Your task to perform on an android device: Open notification settings Image 0: 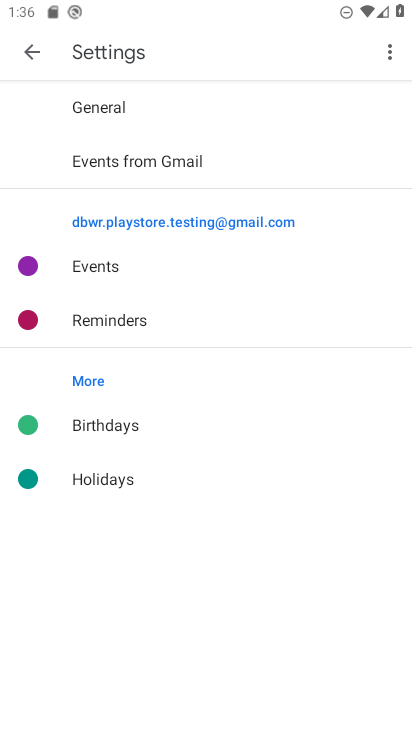
Step 0: press back button
Your task to perform on an android device: Open notification settings Image 1: 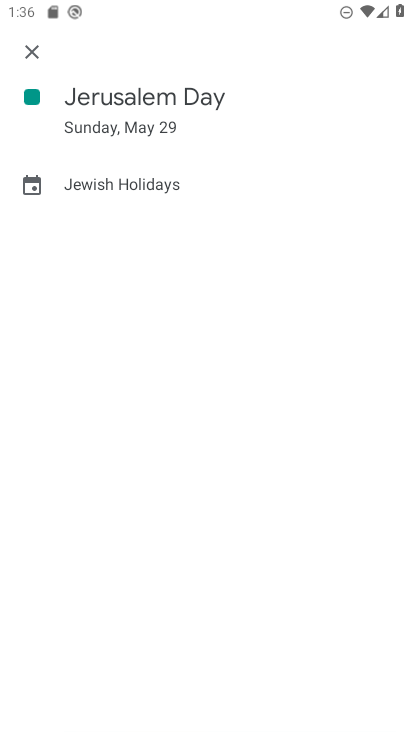
Step 1: press home button
Your task to perform on an android device: Open notification settings Image 2: 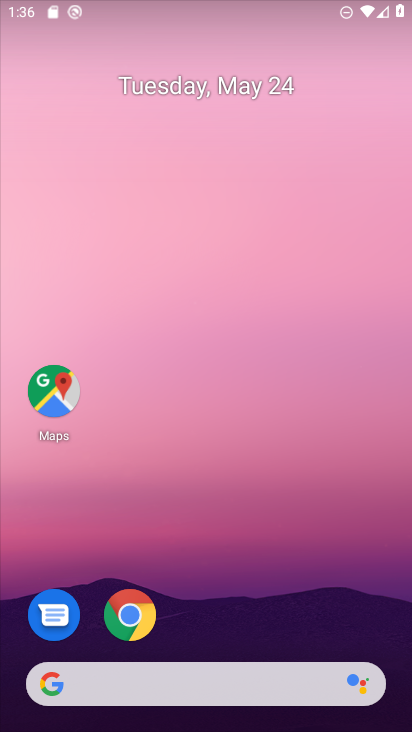
Step 2: drag from (255, 604) to (337, 65)
Your task to perform on an android device: Open notification settings Image 3: 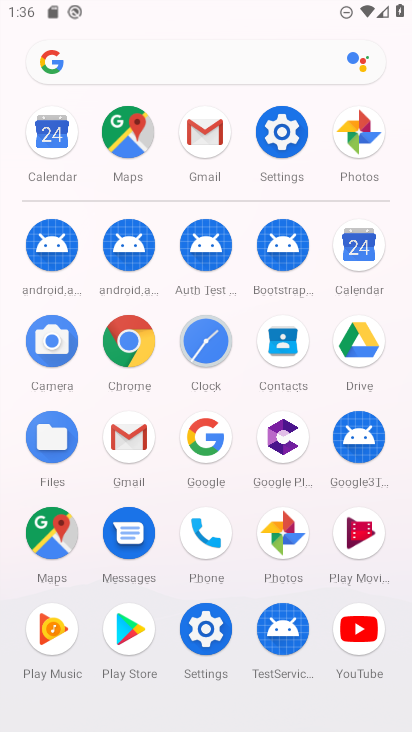
Step 3: click (200, 543)
Your task to perform on an android device: Open notification settings Image 4: 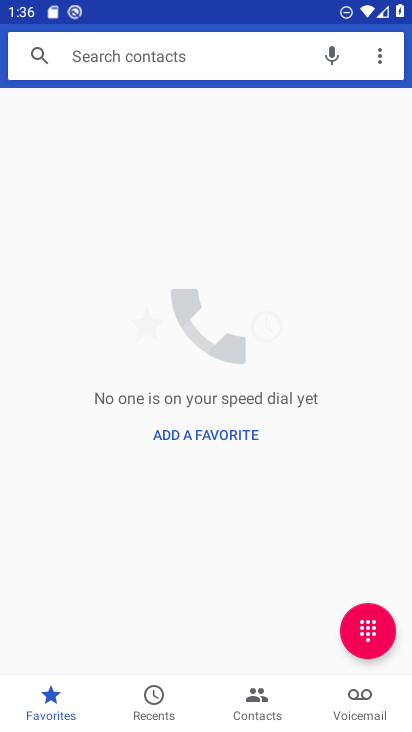
Step 4: press home button
Your task to perform on an android device: Open notification settings Image 5: 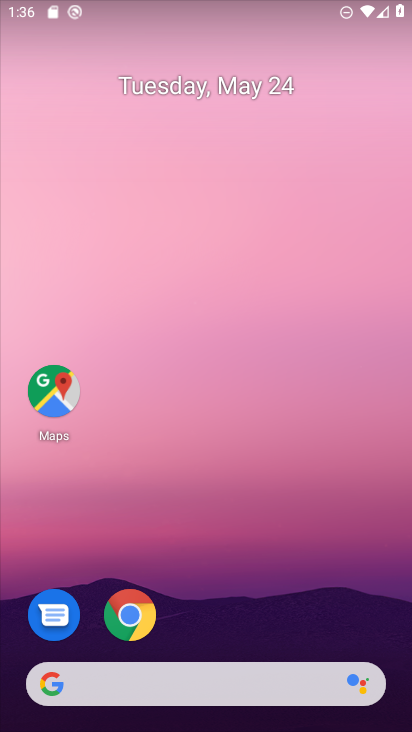
Step 5: drag from (213, 627) to (322, 85)
Your task to perform on an android device: Open notification settings Image 6: 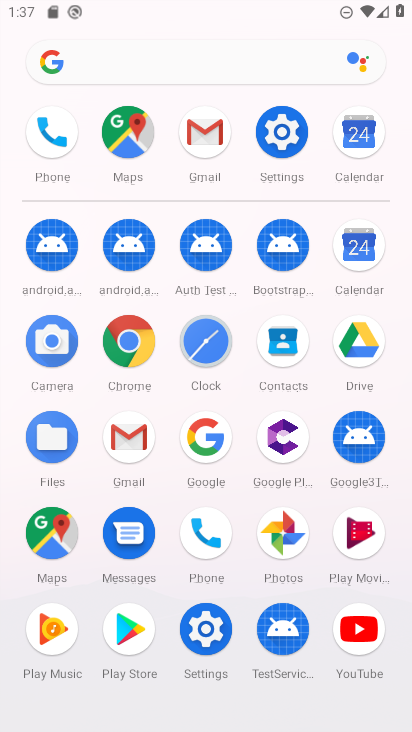
Step 6: click (258, 128)
Your task to perform on an android device: Open notification settings Image 7: 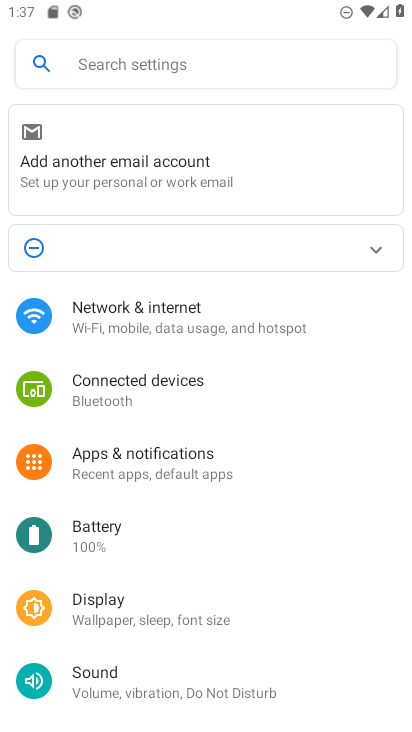
Step 7: click (152, 465)
Your task to perform on an android device: Open notification settings Image 8: 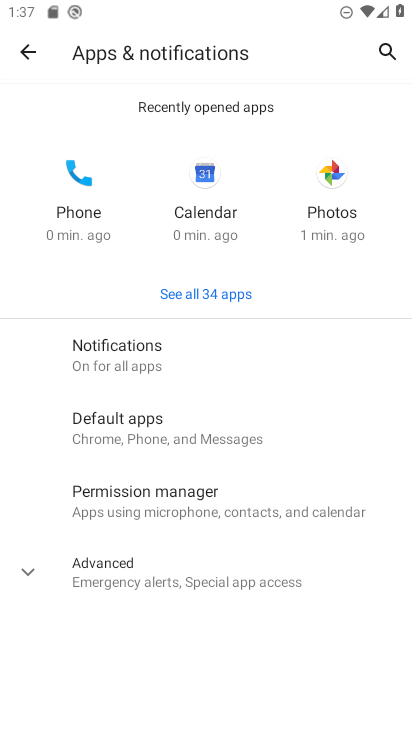
Step 8: task complete